Your task to perform on an android device: turn on location history Image 0: 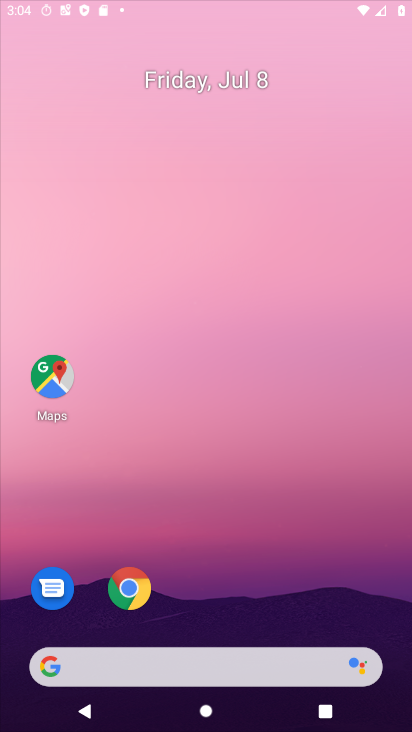
Step 0: press home button
Your task to perform on an android device: turn on location history Image 1: 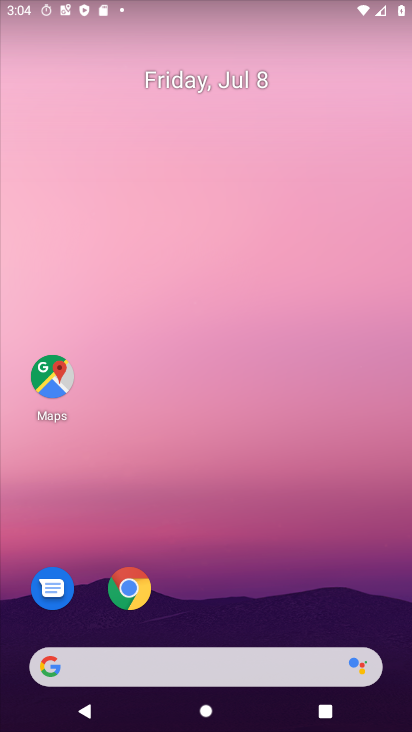
Step 1: drag from (242, 614) to (119, 12)
Your task to perform on an android device: turn on location history Image 2: 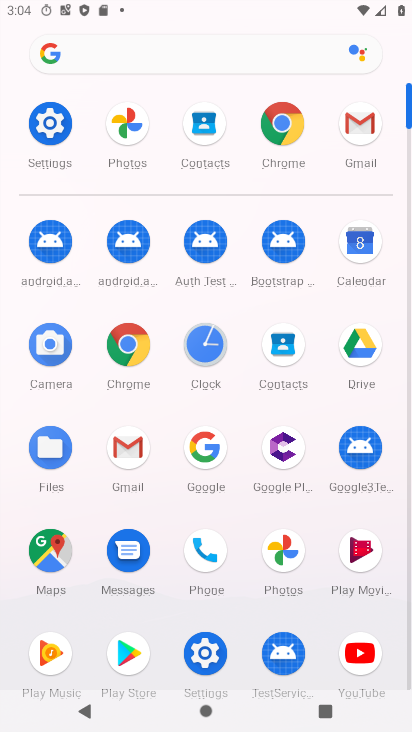
Step 2: click (54, 139)
Your task to perform on an android device: turn on location history Image 3: 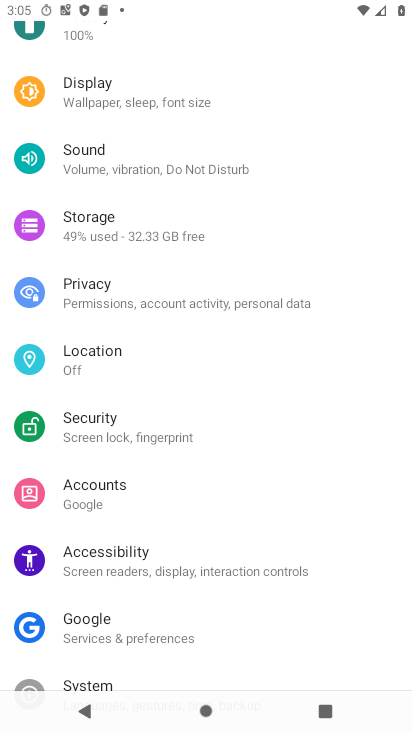
Step 3: click (106, 360)
Your task to perform on an android device: turn on location history Image 4: 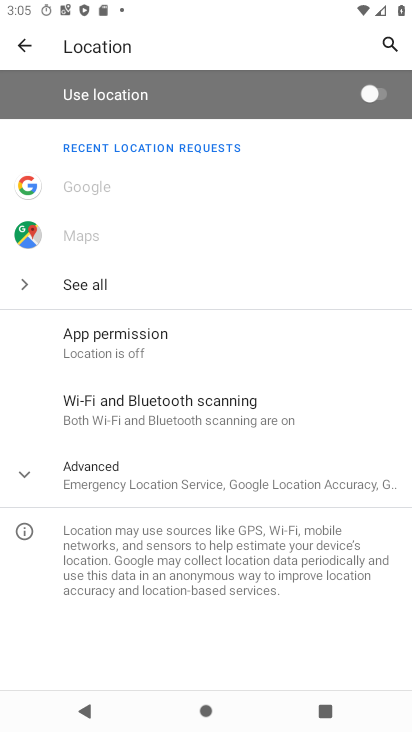
Step 4: click (97, 476)
Your task to perform on an android device: turn on location history Image 5: 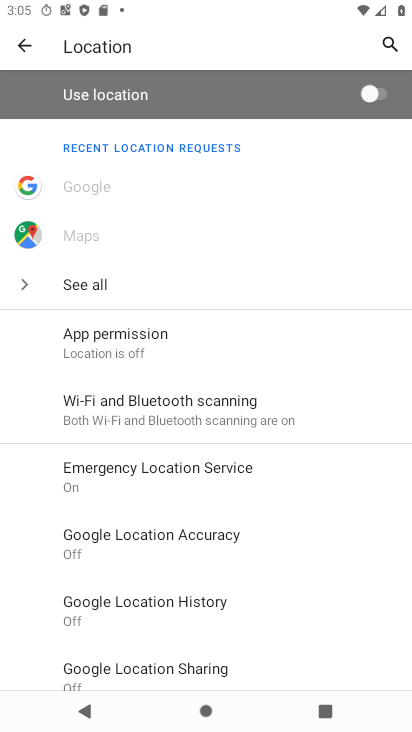
Step 5: drag from (305, 607) to (297, 420)
Your task to perform on an android device: turn on location history Image 6: 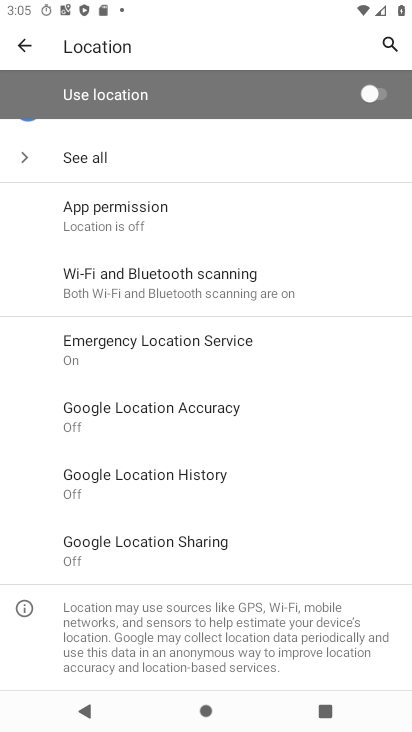
Step 6: click (200, 477)
Your task to perform on an android device: turn on location history Image 7: 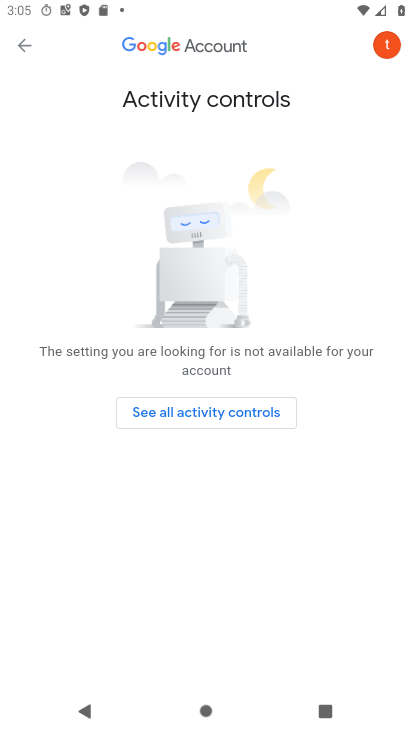
Step 7: click (230, 413)
Your task to perform on an android device: turn on location history Image 8: 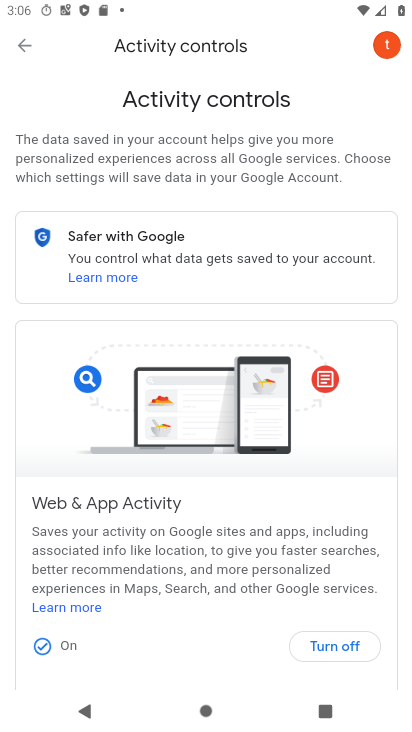
Step 8: task complete